Your task to perform on an android device: What's the weather today? Image 0: 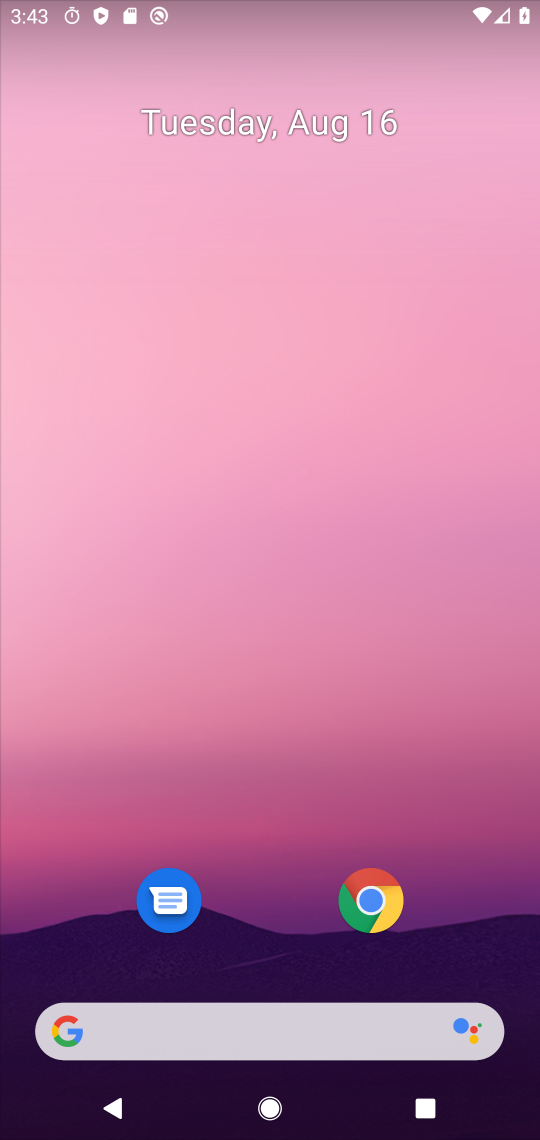
Step 0: drag from (282, 875) to (260, 4)
Your task to perform on an android device: What's the weather today? Image 1: 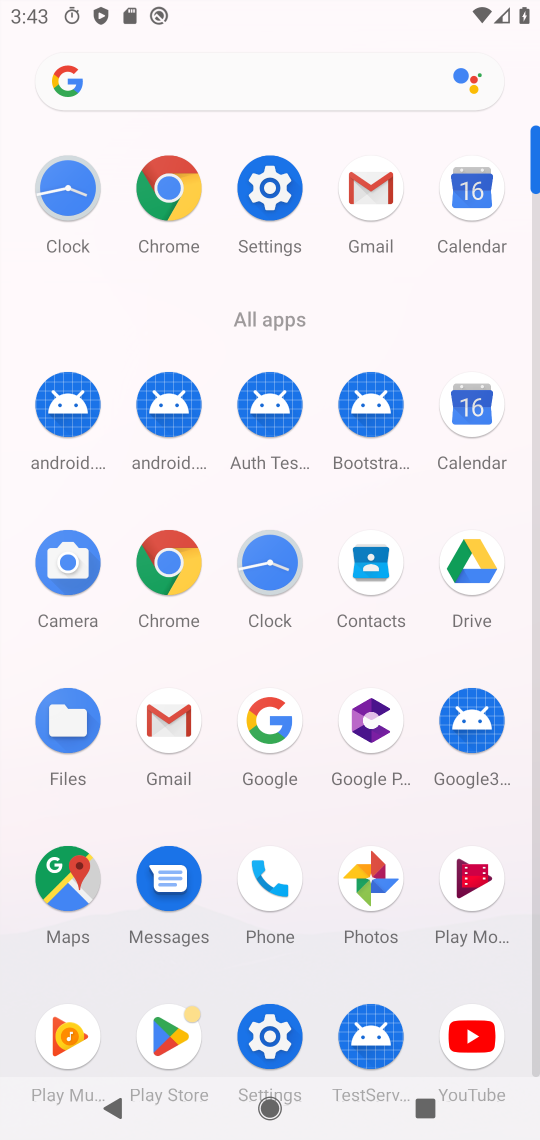
Step 1: click (271, 711)
Your task to perform on an android device: What's the weather today? Image 2: 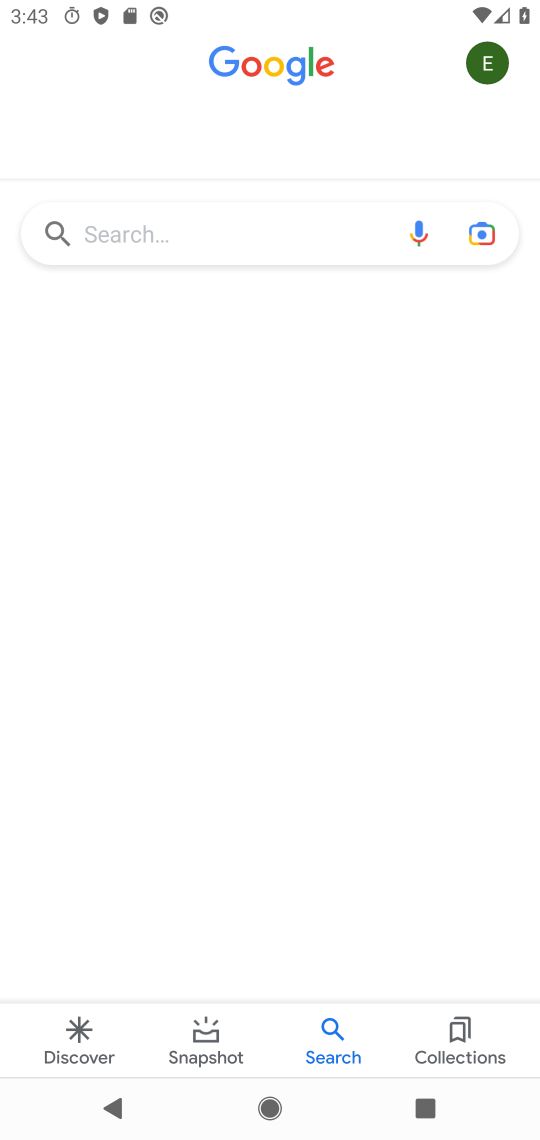
Step 2: click (255, 232)
Your task to perform on an android device: What's the weather today? Image 3: 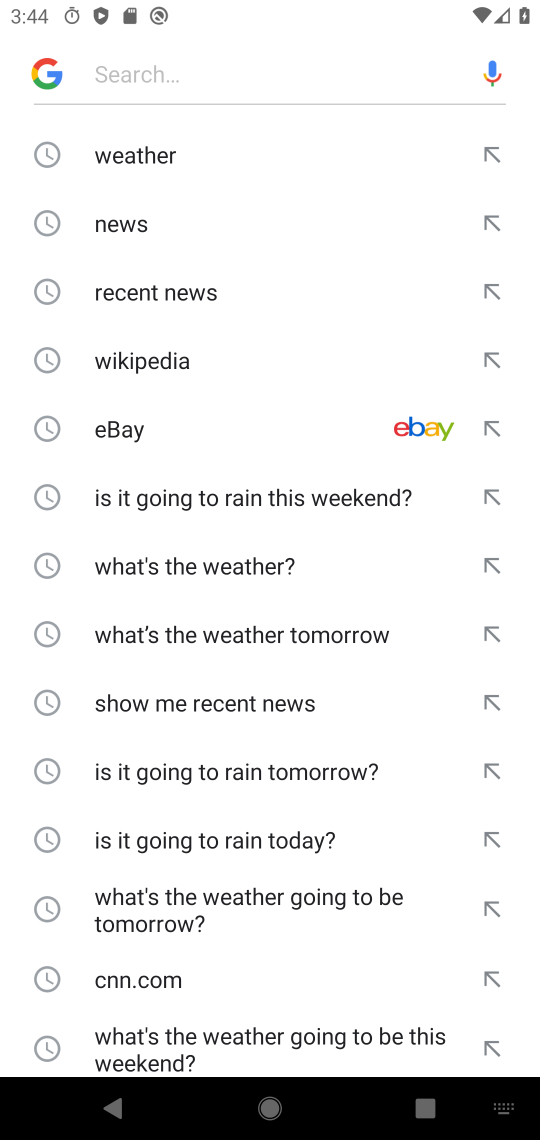
Step 3: click (132, 154)
Your task to perform on an android device: What's the weather today? Image 4: 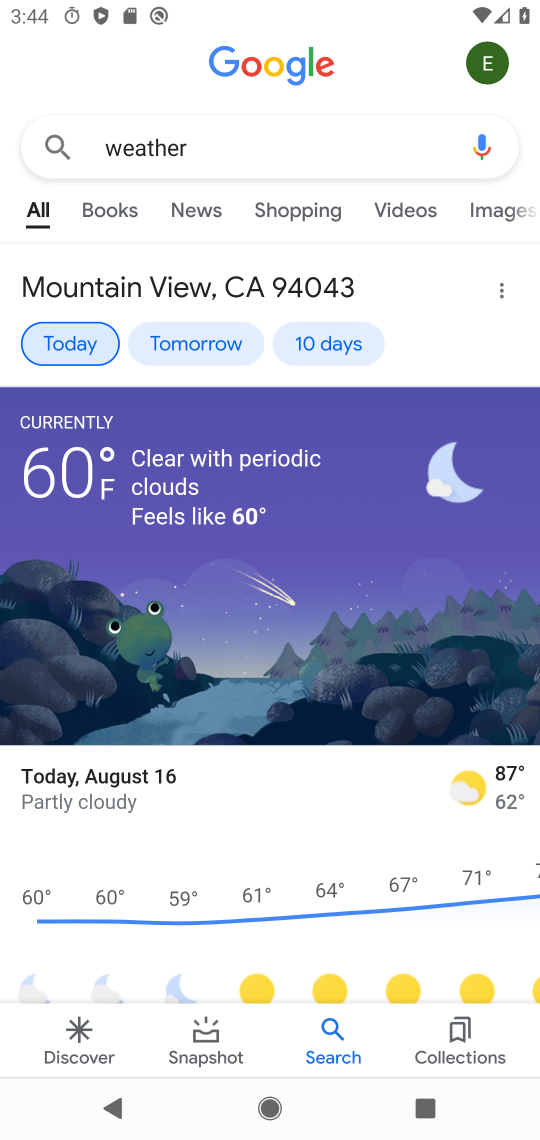
Step 4: click (63, 346)
Your task to perform on an android device: What's the weather today? Image 5: 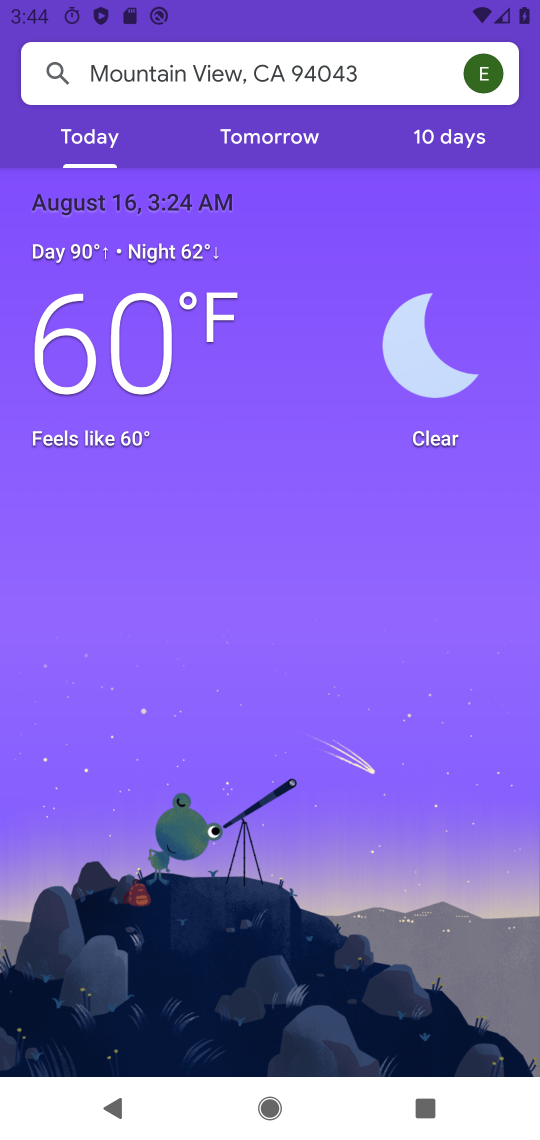
Step 5: task complete